Your task to perform on an android device: Do I have any events this weekend? Image 0: 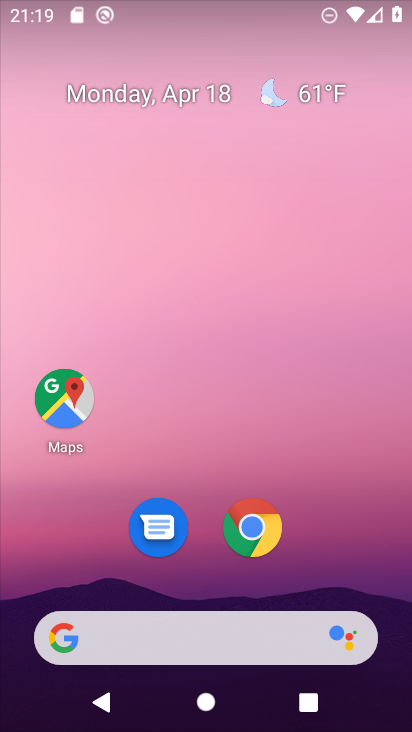
Step 0: click (208, 91)
Your task to perform on an android device: Do I have any events this weekend? Image 1: 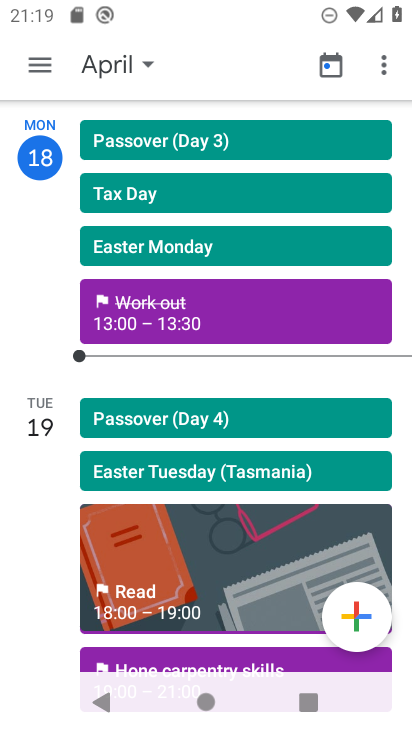
Step 1: drag from (37, 576) to (126, 172)
Your task to perform on an android device: Do I have any events this weekend? Image 2: 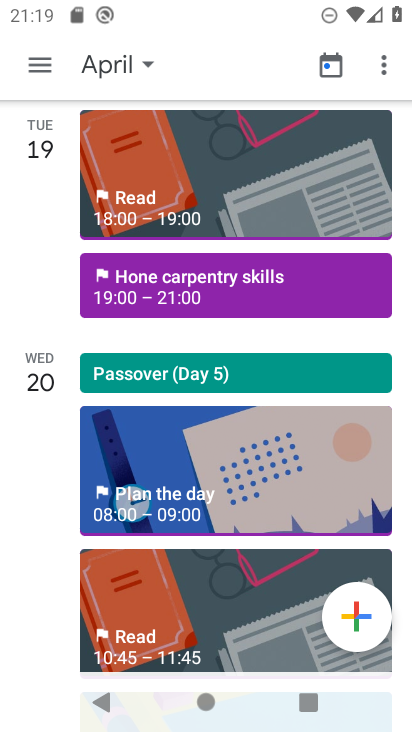
Step 2: click (140, 70)
Your task to perform on an android device: Do I have any events this weekend? Image 3: 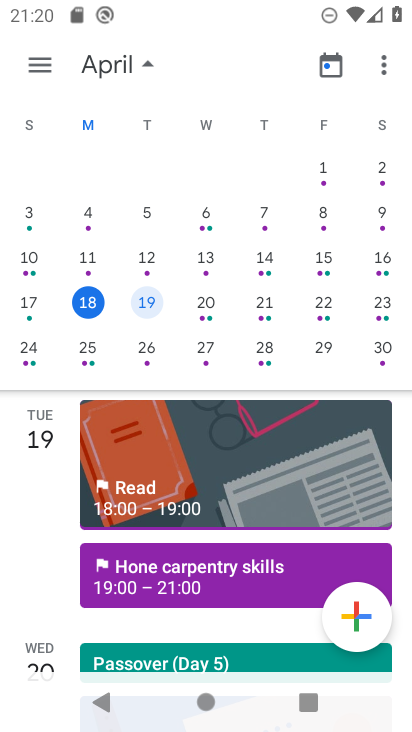
Step 3: click (379, 302)
Your task to perform on an android device: Do I have any events this weekend? Image 4: 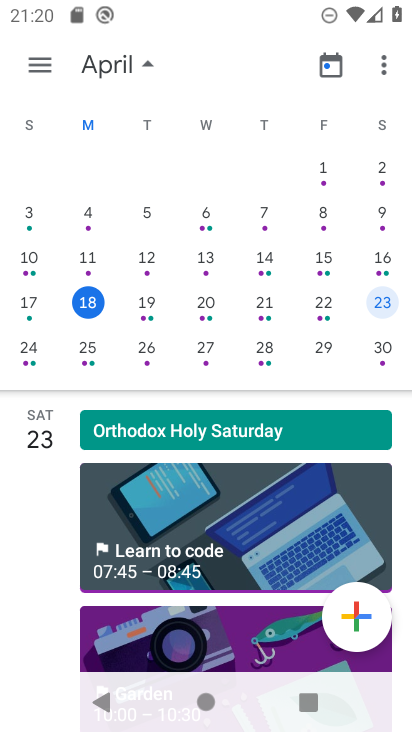
Step 4: click (126, 626)
Your task to perform on an android device: Do I have any events this weekend? Image 5: 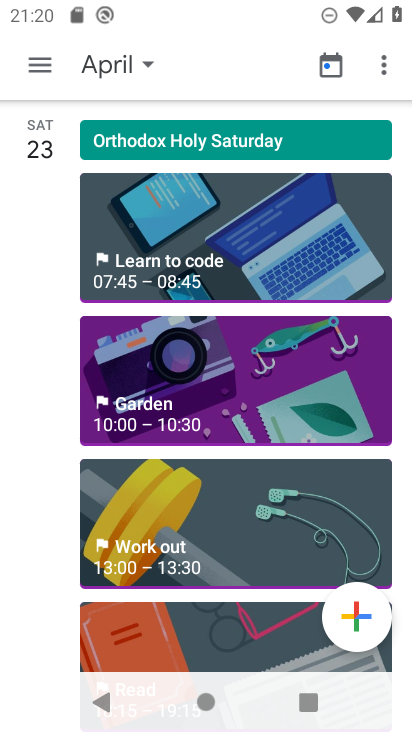
Step 5: click (188, 393)
Your task to perform on an android device: Do I have any events this weekend? Image 6: 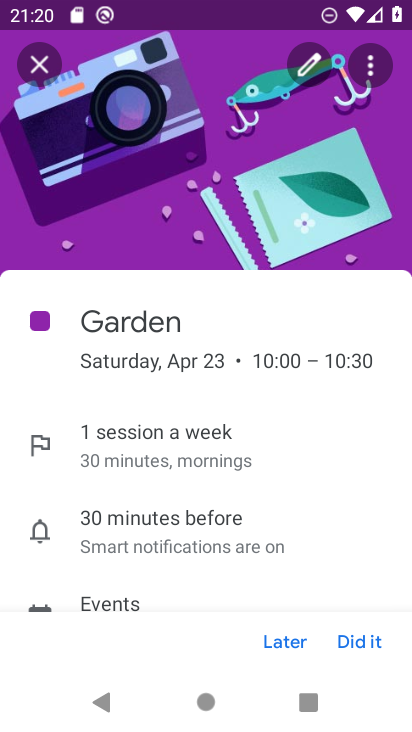
Step 6: task complete